Your task to perform on an android device: change notification settings in the gmail app Image 0: 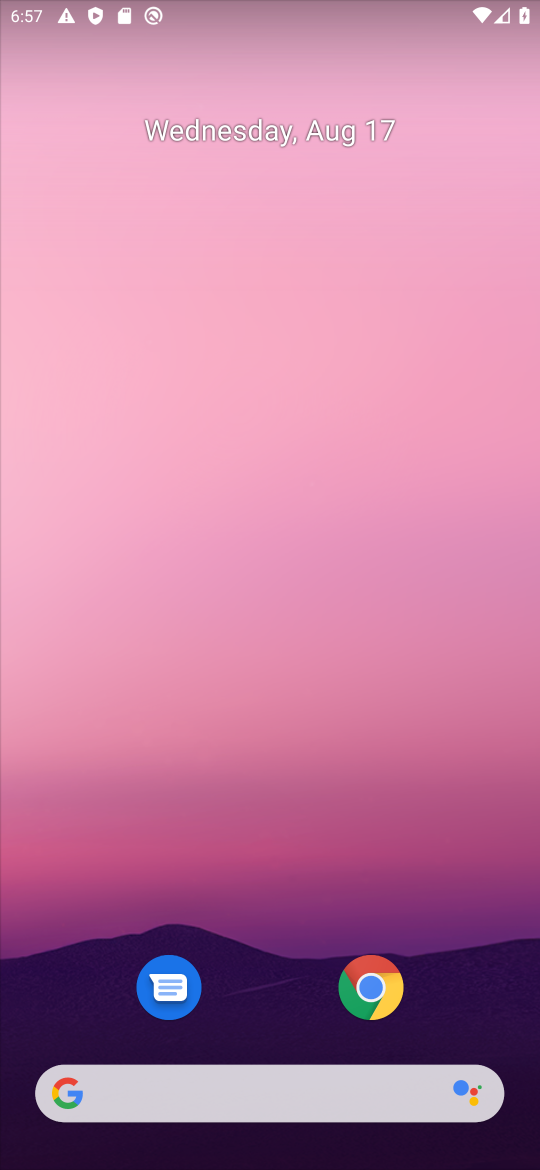
Step 0: drag from (407, 435) to (263, 10)
Your task to perform on an android device: change notification settings in the gmail app Image 1: 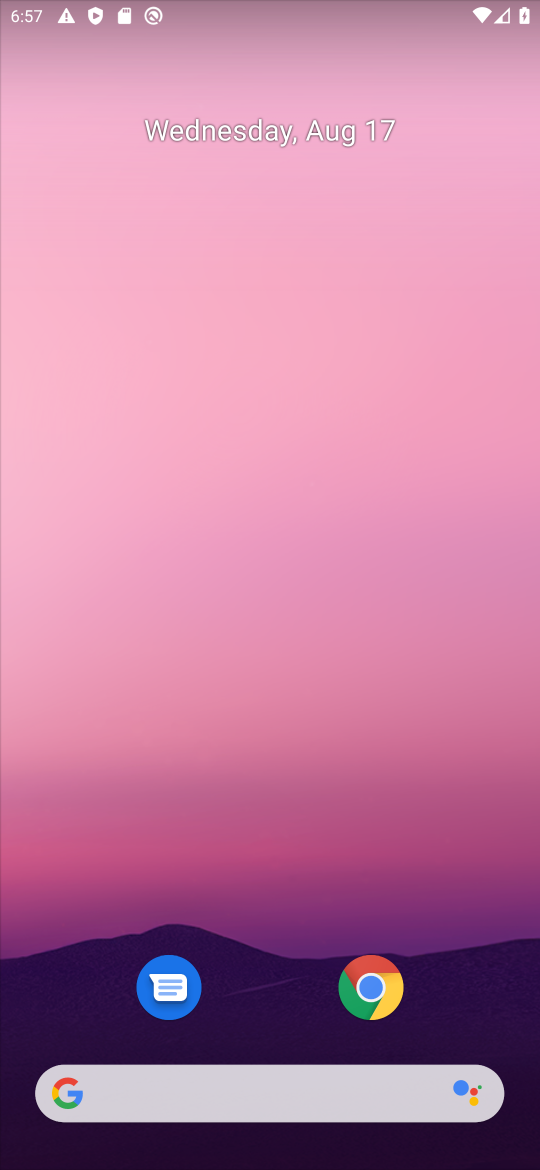
Step 1: drag from (478, 1020) to (265, 56)
Your task to perform on an android device: change notification settings in the gmail app Image 2: 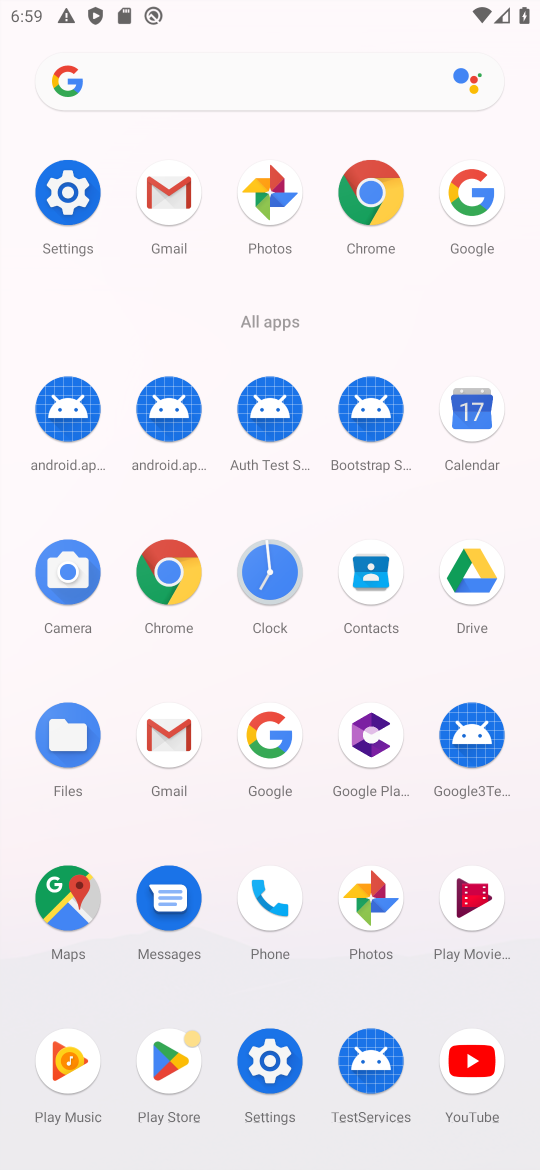
Step 2: click (181, 743)
Your task to perform on an android device: change notification settings in the gmail app Image 3: 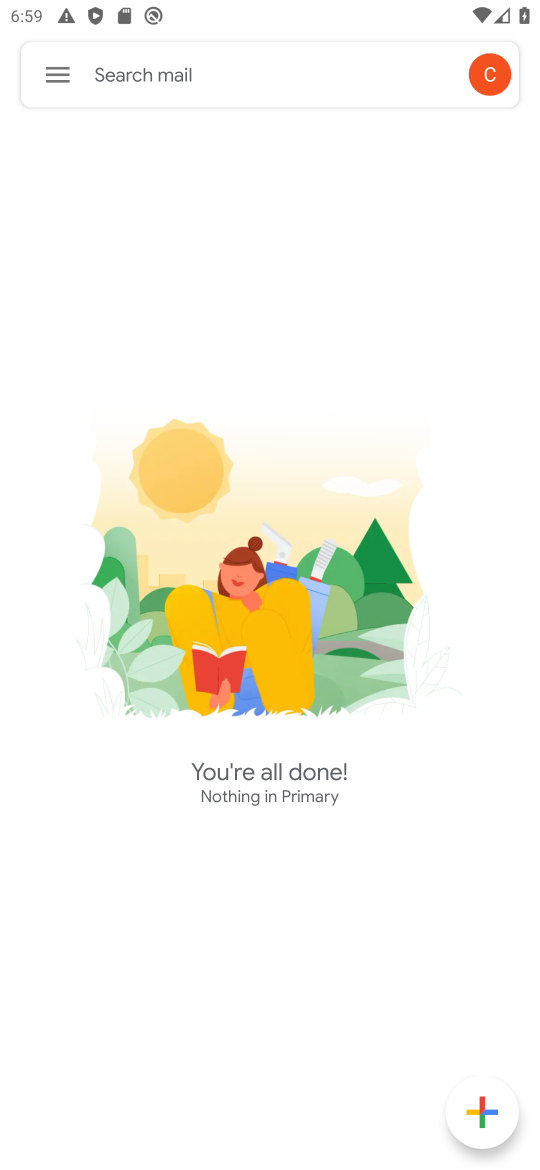
Step 3: click (43, 90)
Your task to perform on an android device: change notification settings in the gmail app Image 4: 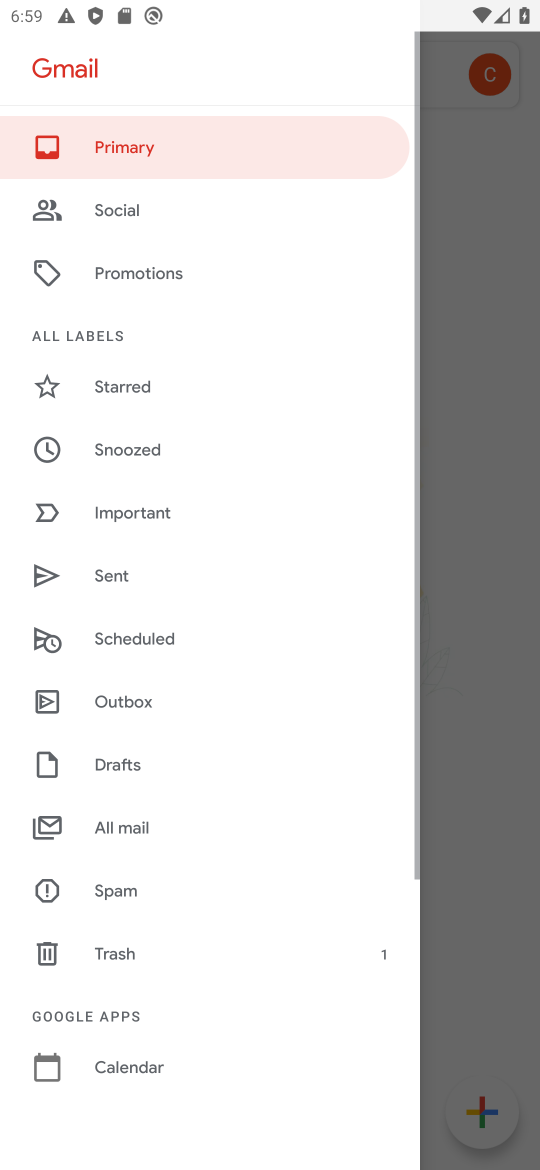
Step 4: drag from (197, 1000) to (118, 0)
Your task to perform on an android device: change notification settings in the gmail app Image 5: 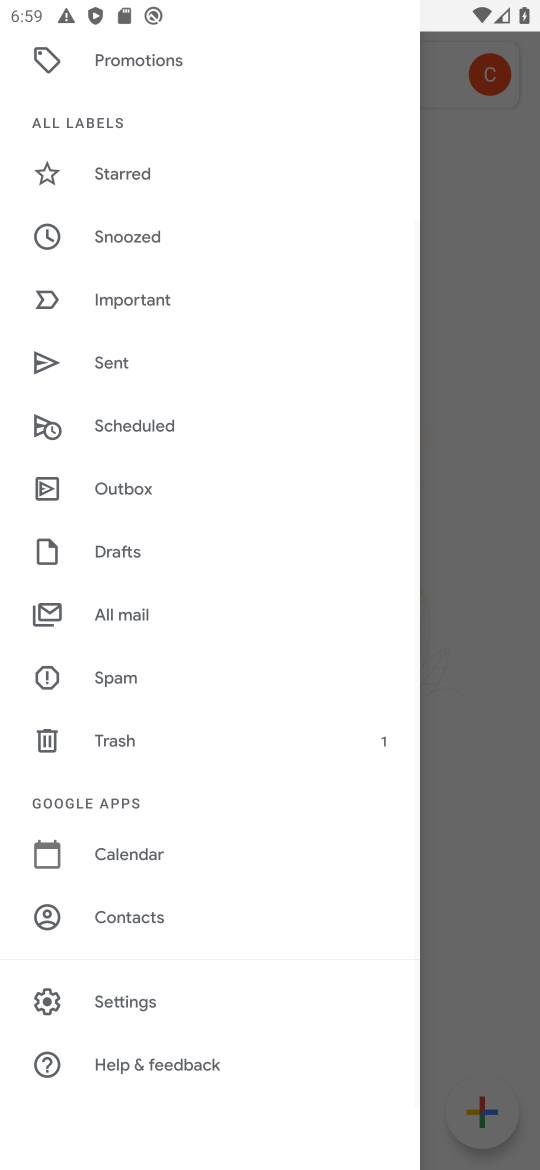
Step 5: click (157, 1007)
Your task to perform on an android device: change notification settings in the gmail app Image 6: 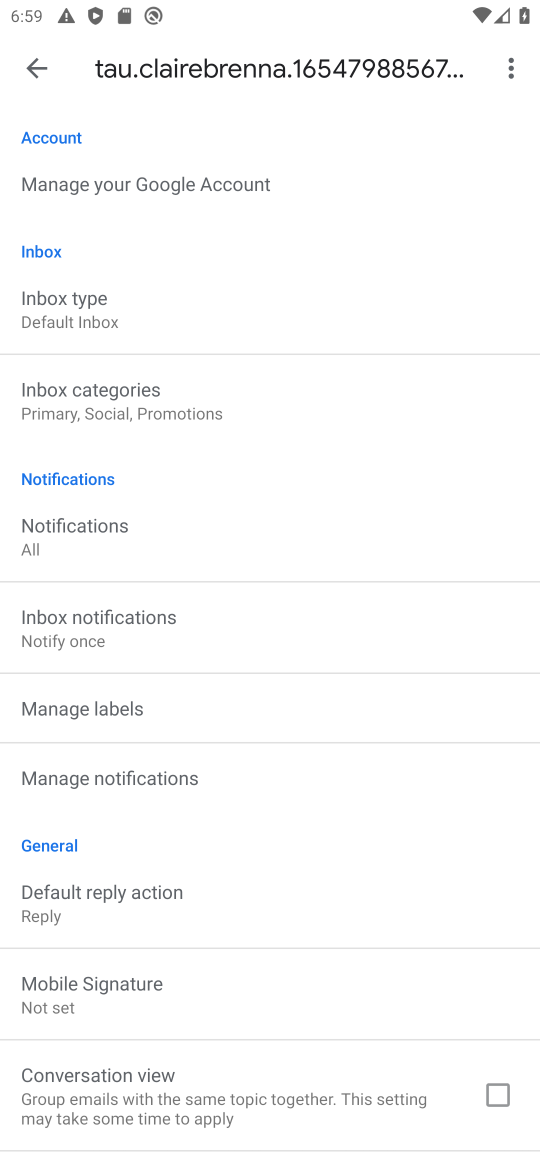
Step 6: click (95, 307)
Your task to perform on an android device: change notification settings in the gmail app Image 7: 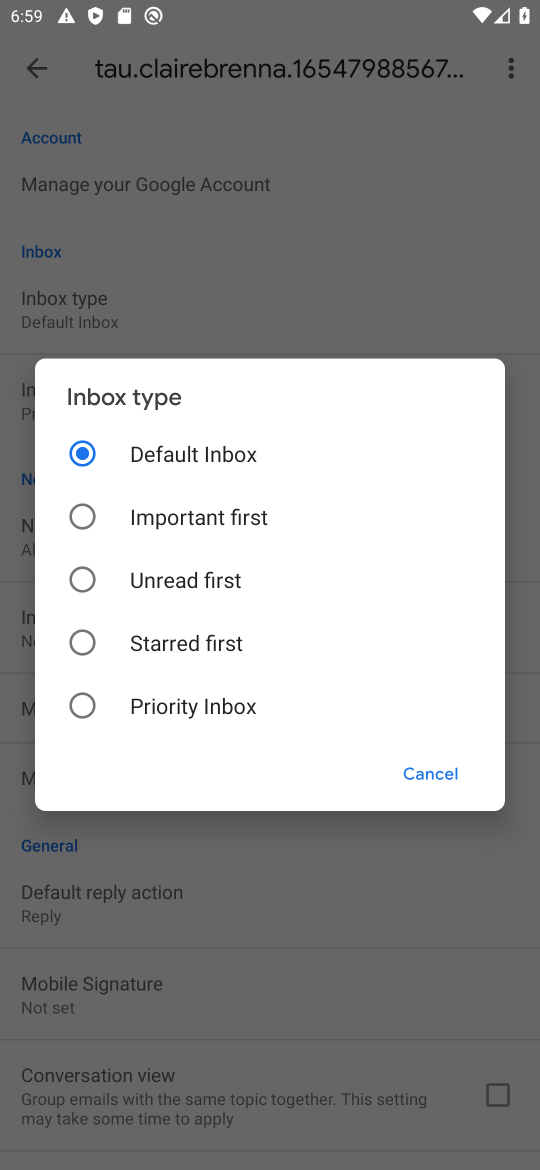
Step 7: click (421, 775)
Your task to perform on an android device: change notification settings in the gmail app Image 8: 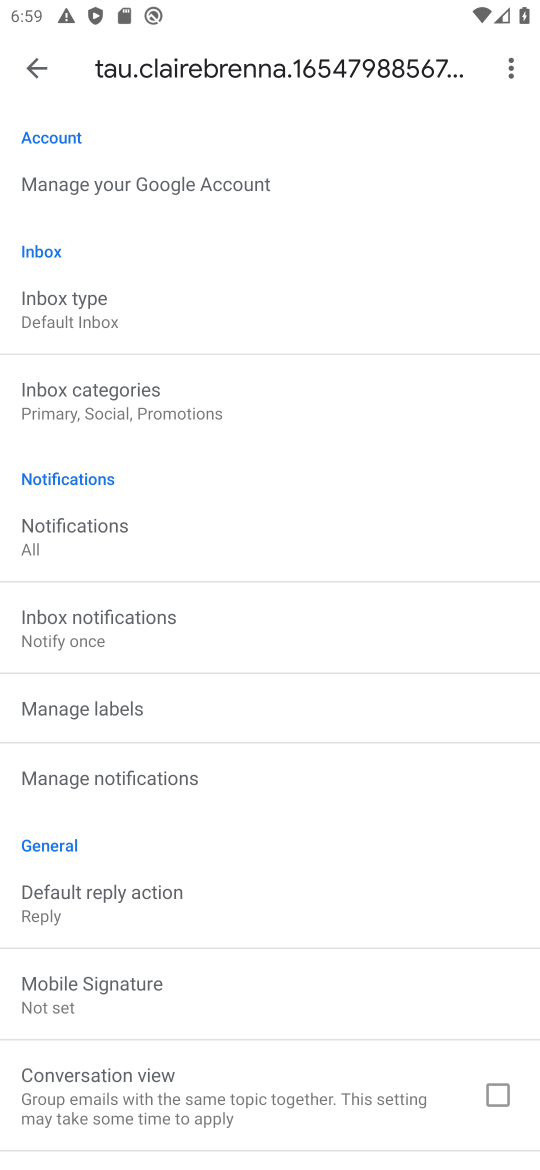
Step 8: click (103, 520)
Your task to perform on an android device: change notification settings in the gmail app Image 9: 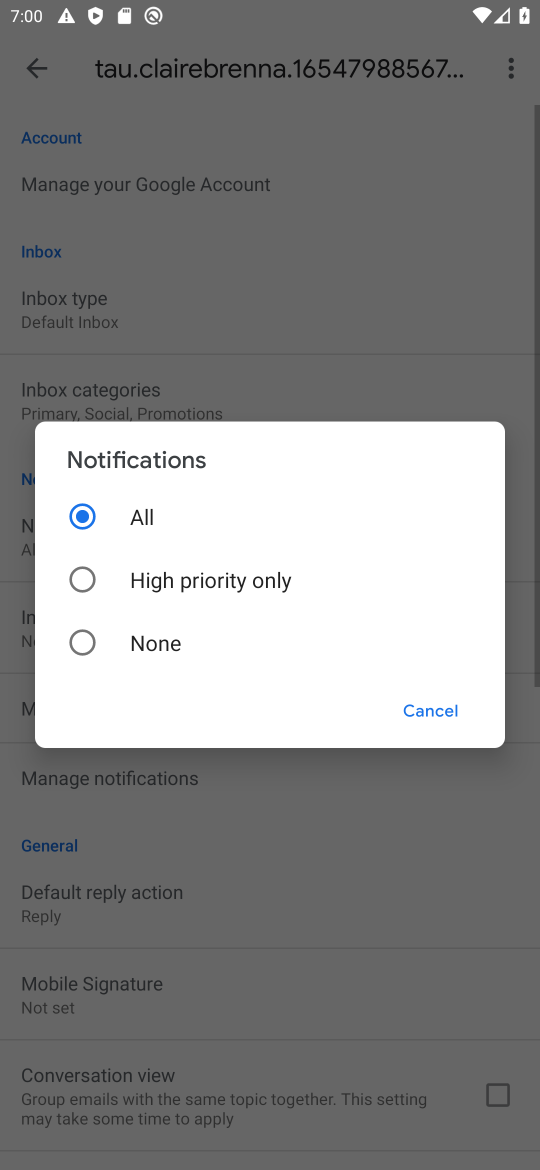
Step 9: click (133, 586)
Your task to perform on an android device: change notification settings in the gmail app Image 10: 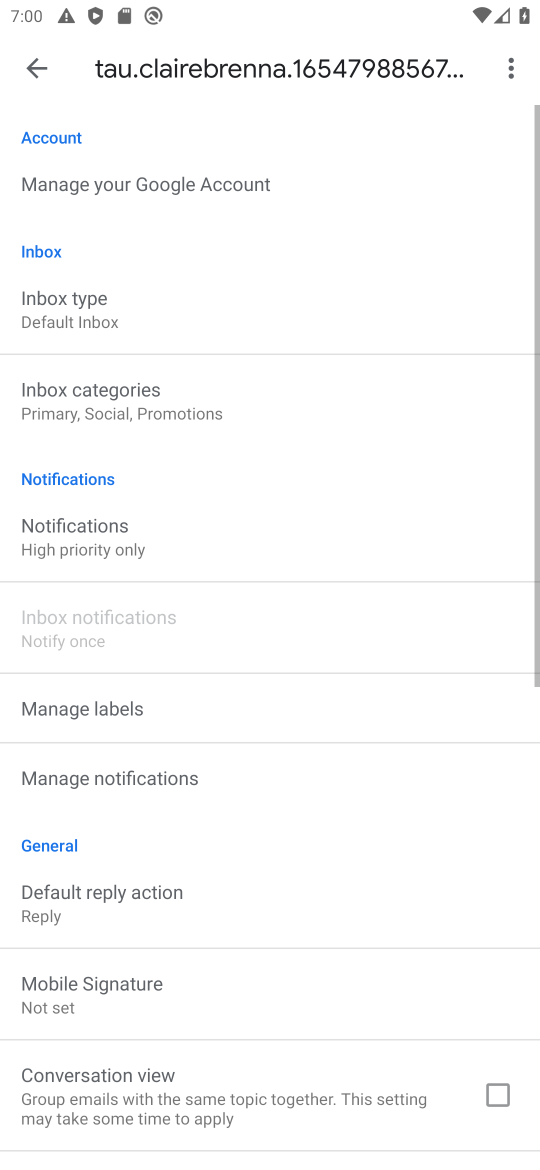
Step 10: task complete